Your task to perform on an android device: turn pop-ups on in chrome Image 0: 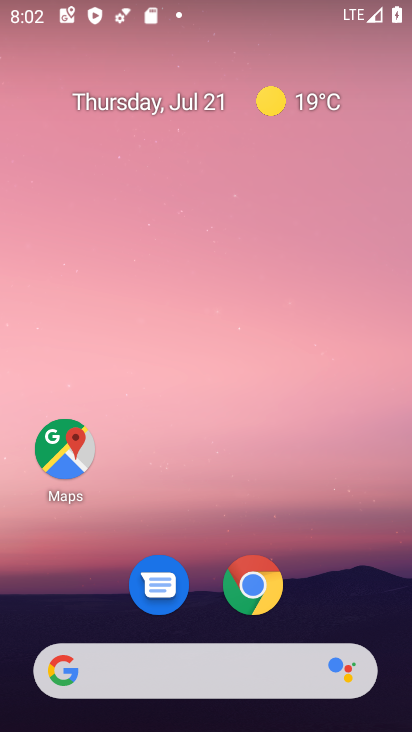
Step 0: click (269, 587)
Your task to perform on an android device: turn pop-ups on in chrome Image 1: 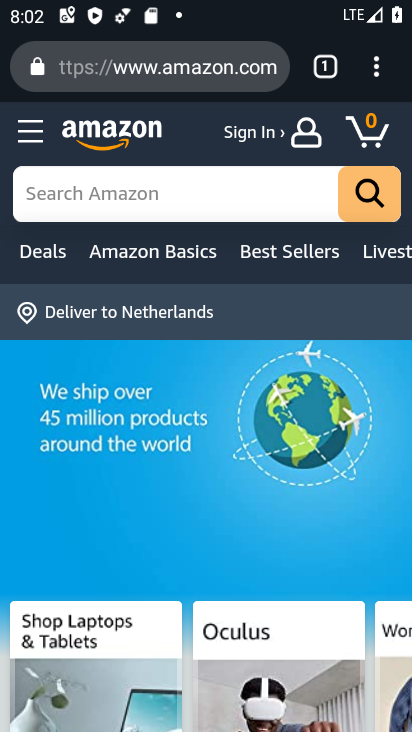
Step 1: click (379, 70)
Your task to perform on an android device: turn pop-ups on in chrome Image 2: 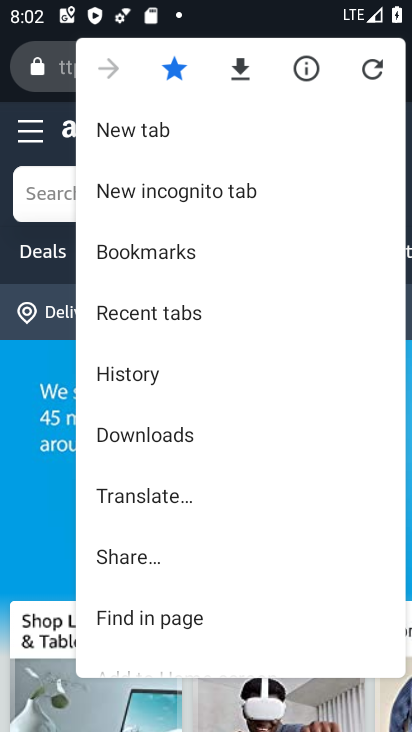
Step 2: press back button
Your task to perform on an android device: turn pop-ups on in chrome Image 3: 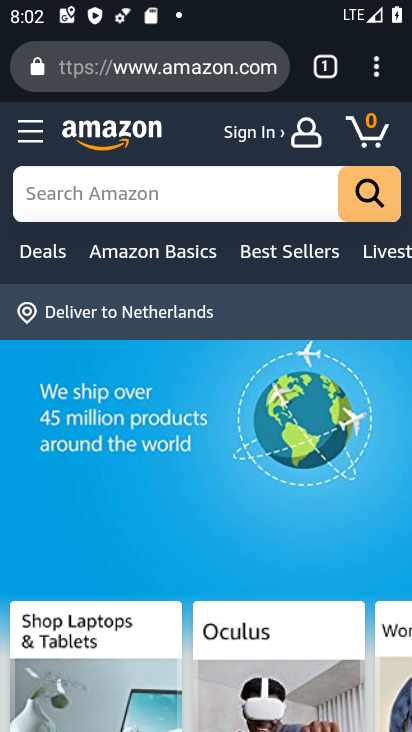
Step 3: press back button
Your task to perform on an android device: turn pop-ups on in chrome Image 4: 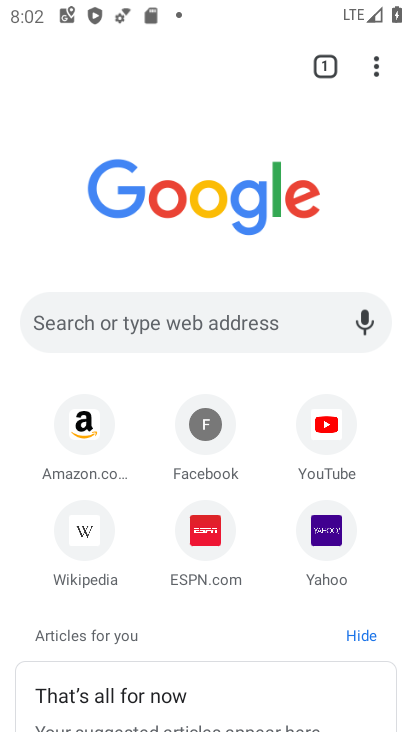
Step 4: click (373, 70)
Your task to perform on an android device: turn pop-ups on in chrome Image 5: 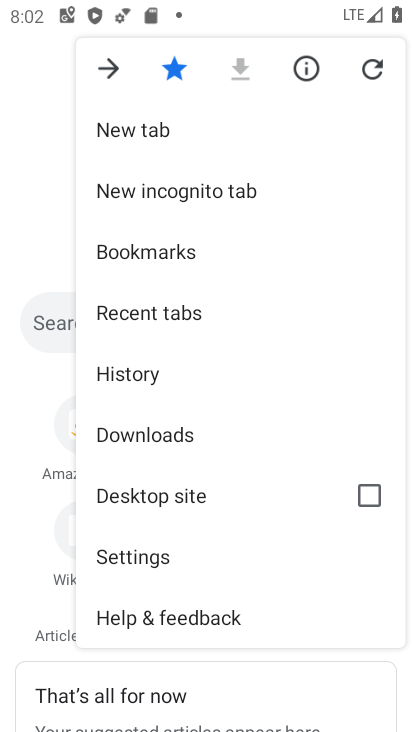
Step 5: click (155, 557)
Your task to perform on an android device: turn pop-ups on in chrome Image 6: 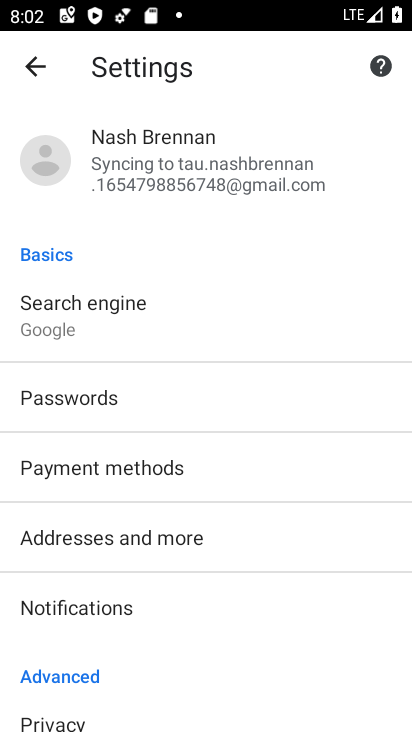
Step 6: drag from (207, 595) to (207, 249)
Your task to perform on an android device: turn pop-ups on in chrome Image 7: 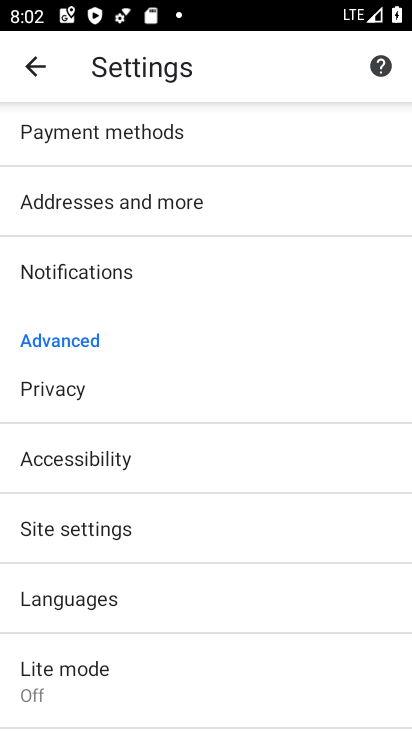
Step 7: click (108, 525)
Your task to perform on an android device: turn pop-ups on in chrome Image 8: 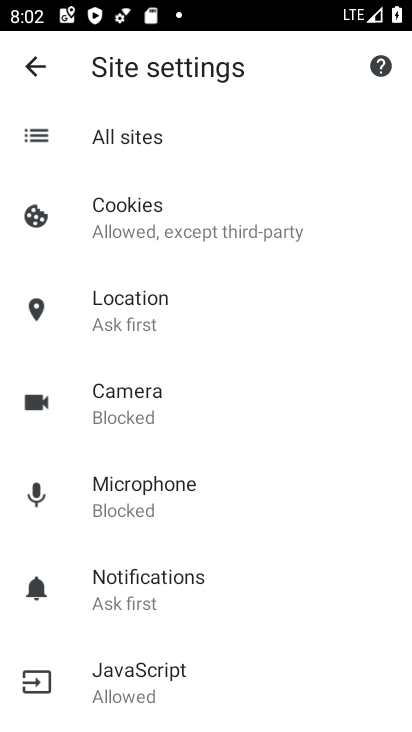
Step 8: drag from (228, 555) to (214, 334)
Your task to perform on an android device: turn pop-ups on in chrome Image 9: 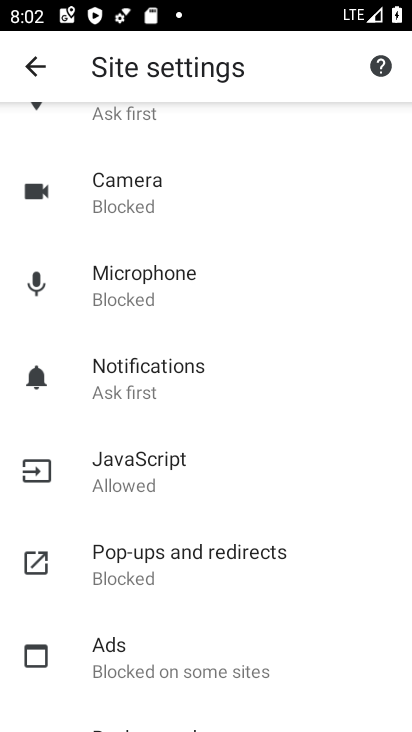
Step 9: click (216, 555)
Your task to perform on an android device: turn pop-ups on in chrome Image 10: 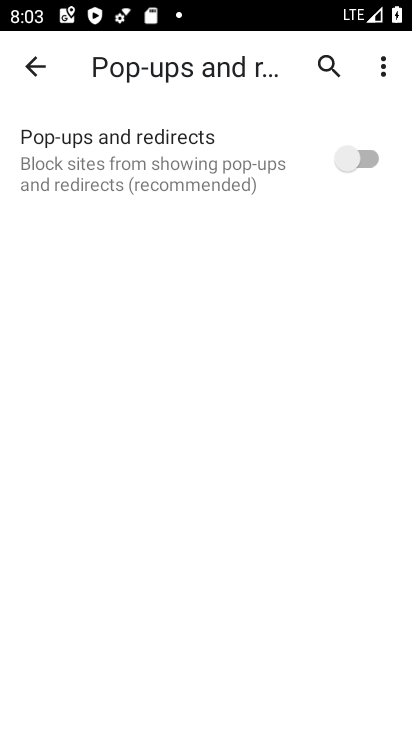
Step 10: click (350, 148)
Your task to perform on an android device: turn pop-ups on in chrome Image 11: 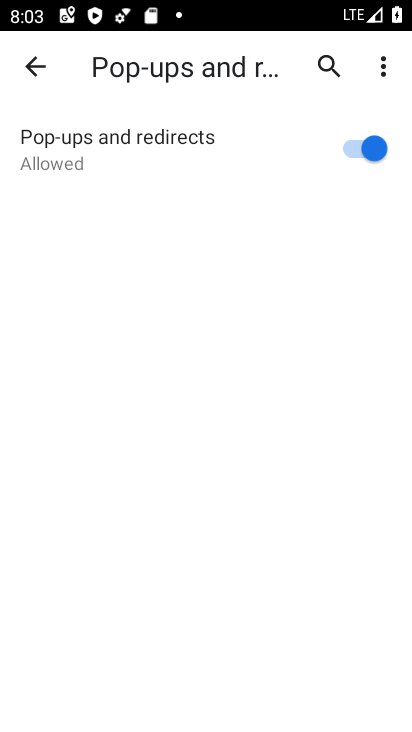
Step 11: task complete